Your task to perform on an android device: Go to network settings Image 0: 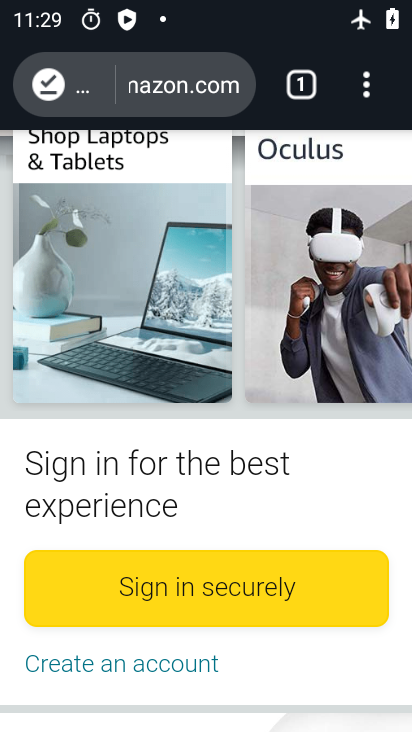
Step 0: press home button
Your task to perform on an android device: Go to network settings Image 1: 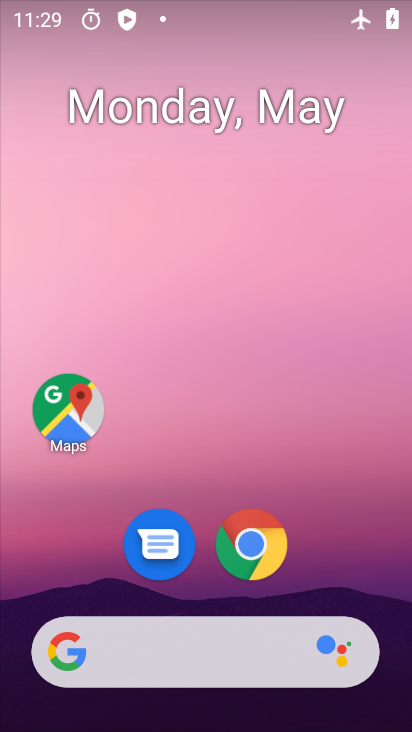
Step 1: drag from (344, 582) to (325, 197)
Your task to perform on an android device: Go to network settings Image 2: 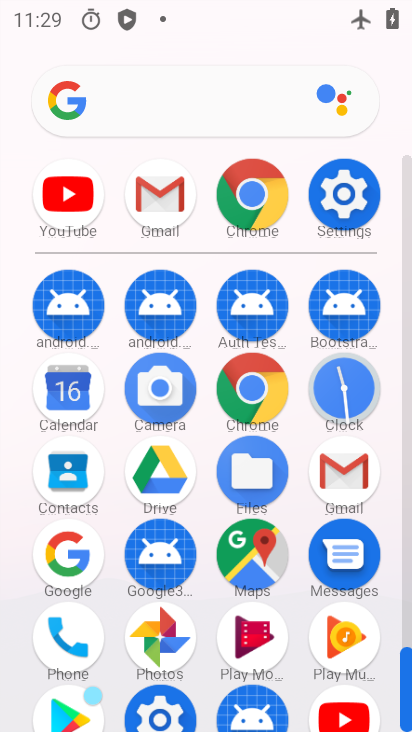
Step 2: click (341, 218)
Your task to perform on an android device: Go to network settings Image 3: 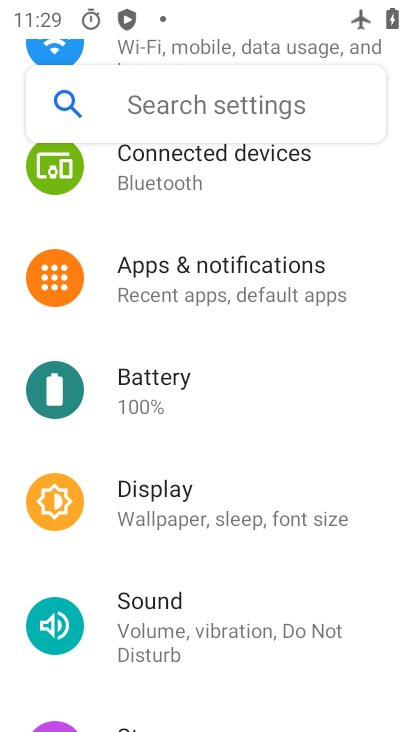
Step 3: drag from (268, 215) to (264, 604)
Your task to perform on an android device: Go to network settings Image 4: 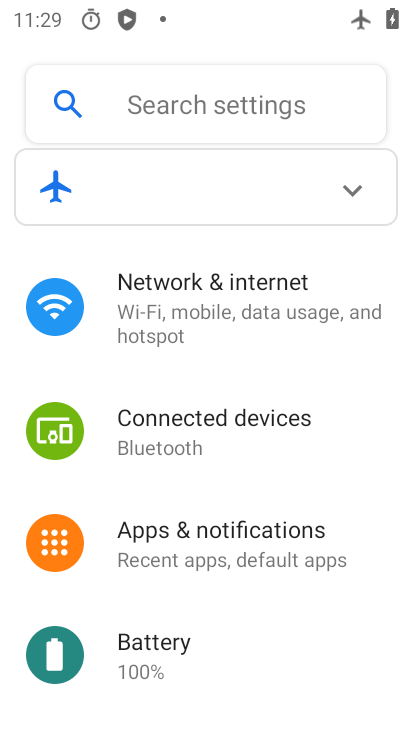
Step 4: click (156, 314)
Your task to perform on an android device: Go to network settings Image 5: 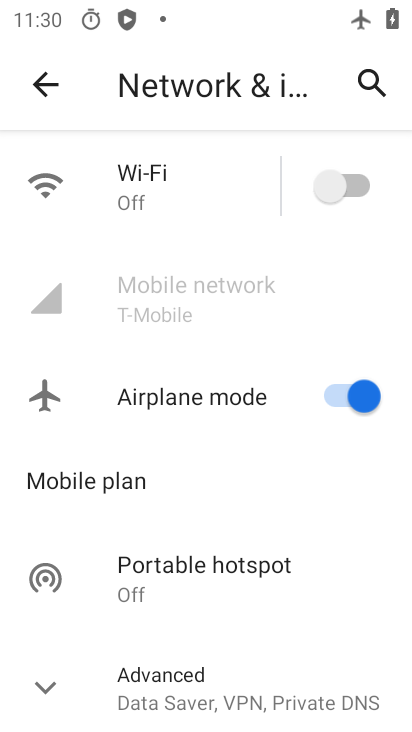
Step 5: task complete